Your task to perform on an android device: open wifi settings Image 0: 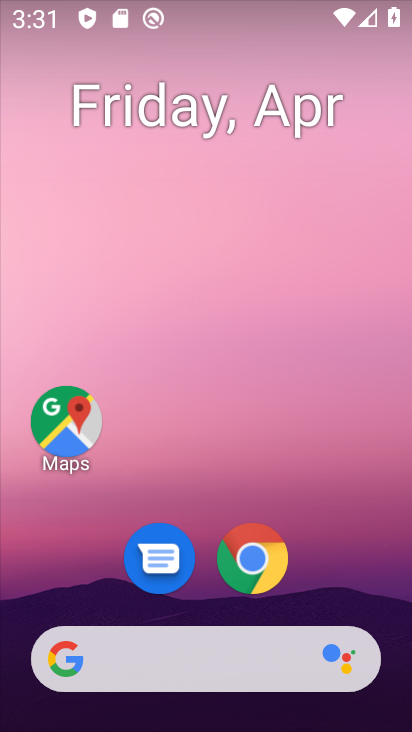
Step 0: drag from (334, 613) to (271, 139)
Your task to perform on an android device: open wifi settings Image 1: 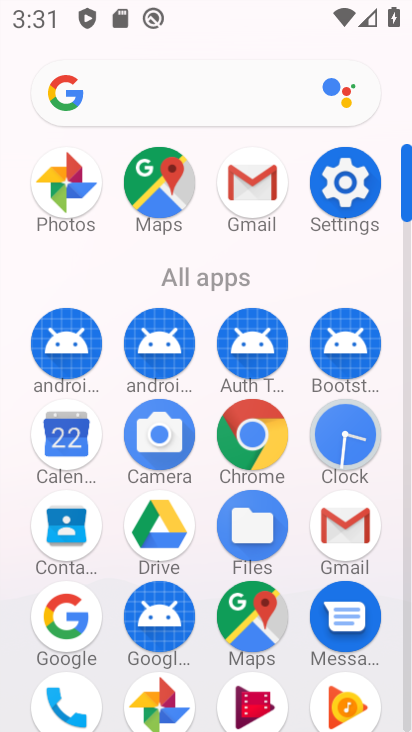
Step 1: click (344, 182)
Your task to perform on an android device: open wifi settings Image 2: 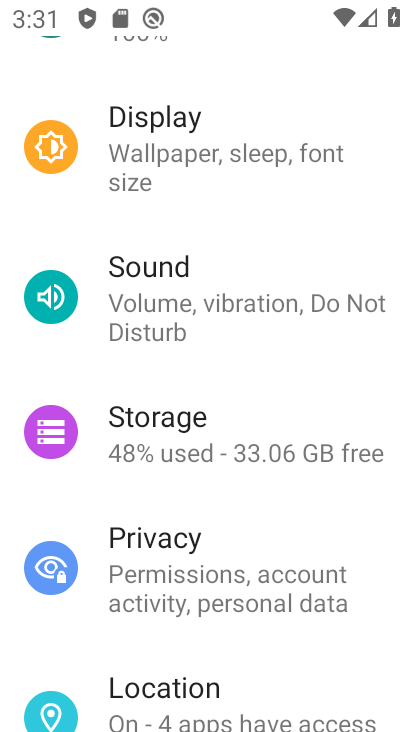
Step 2: drag from (236, 237) to (211, 580)
Your task to perform on an android device: open wifi settings Image 3: 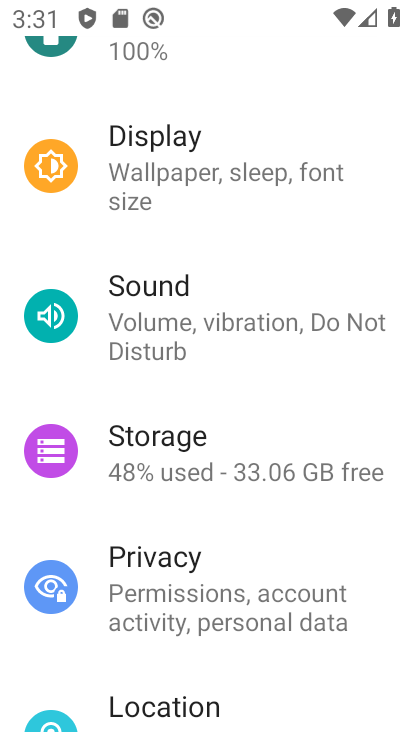
Step 3: drag from (222, 338) to (205, 616)
Your task to perform on an android device: open wifi settings Image 4: 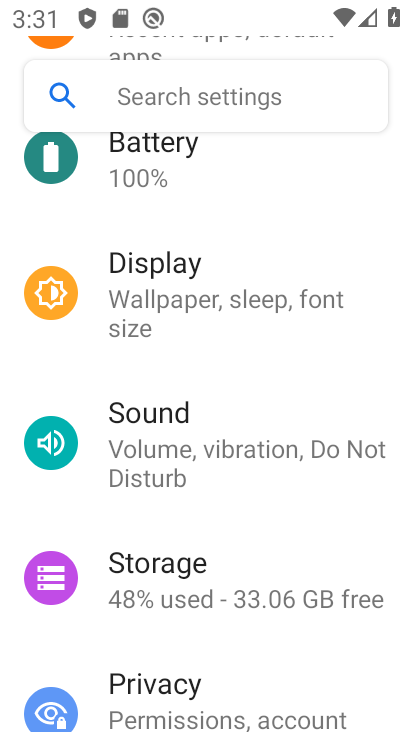
Step 4: drag from (282, 190) to (218, 579)
Your task to perform on an android device: open wifi settings Image 5: 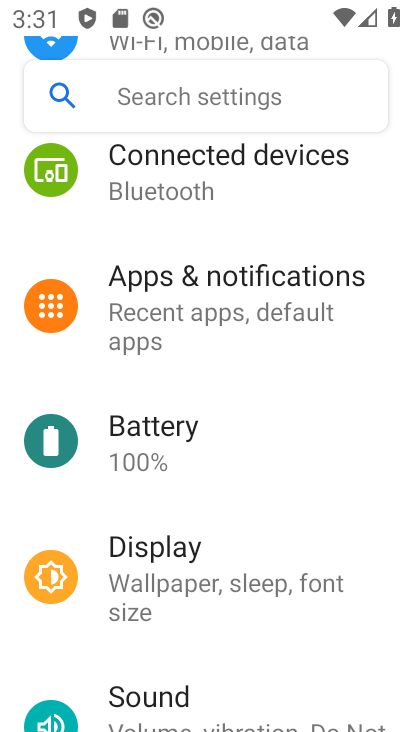
Step 5: drag from (180, 185) to (112, 606)
Your task to perform on an android device: open wifi settings Image 6: 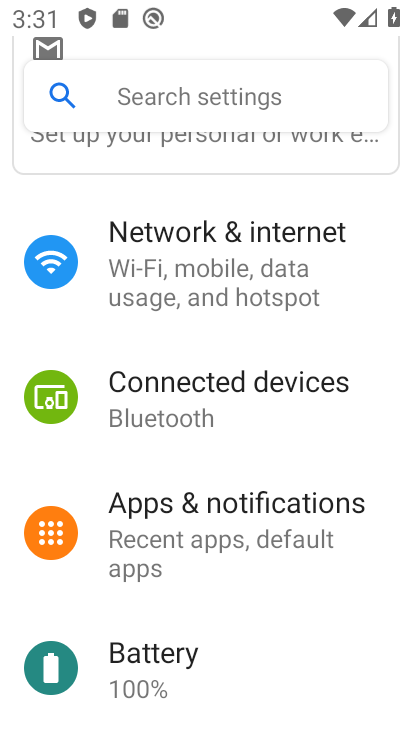
Step 6: click (166, 274)
Your task to perform on an android device: open wifi settings Image 7: 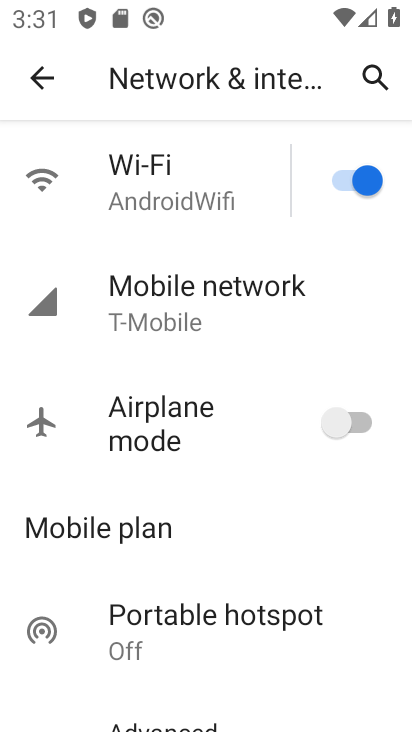
Step 7: click (202, 191)
Your task to perform on an android device: open wifi settings Image 8: 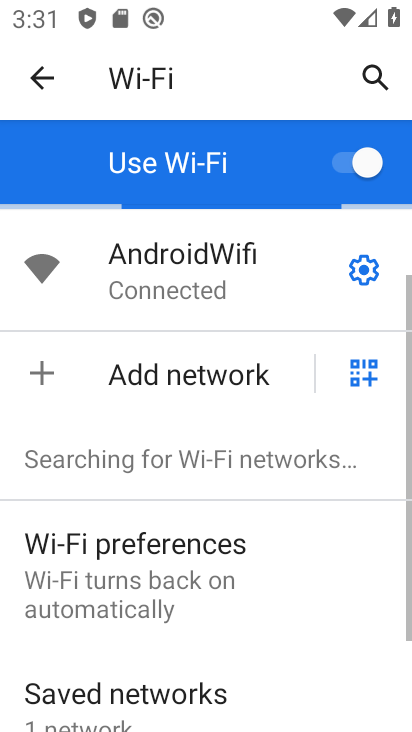
Step 8: task complete